Your task to perform on an android device: Clear all items from cart on ebay.com. Add "bose soundlink mini" to the cart on ebay.com Image 0: 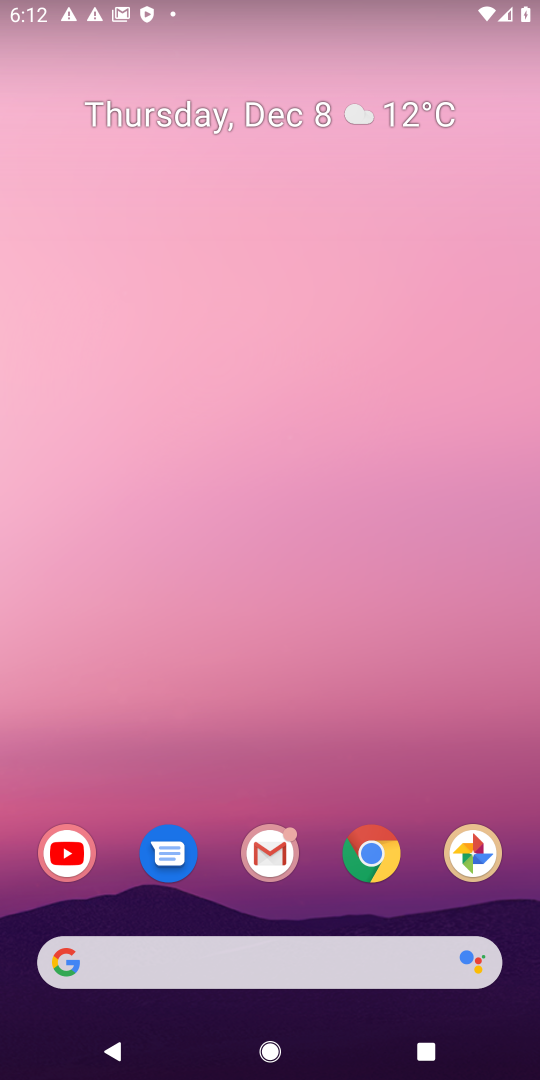
Step 0: click (239, 951)
Your task to perform on an android device: Clear all items from cart on ebay.com. Add "bose soundlink mini" to the cart on ebay.com Image 1: 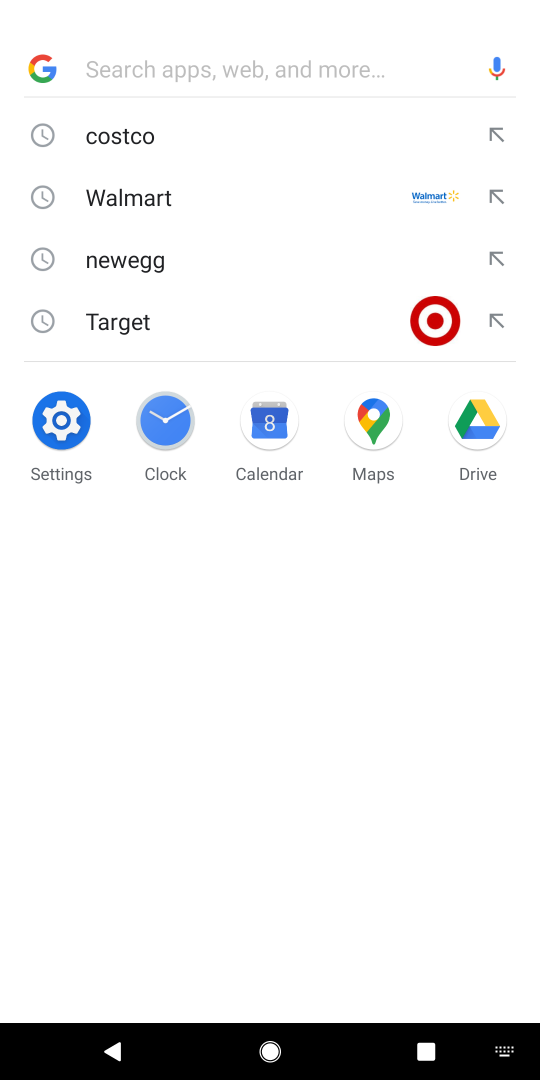
Step 1: type "ebay.com"
Your task to perform on an android device: Clear all items from cart on ebay.com. Add "bose soundlink mini" to the cart on ebay.com Image 2: 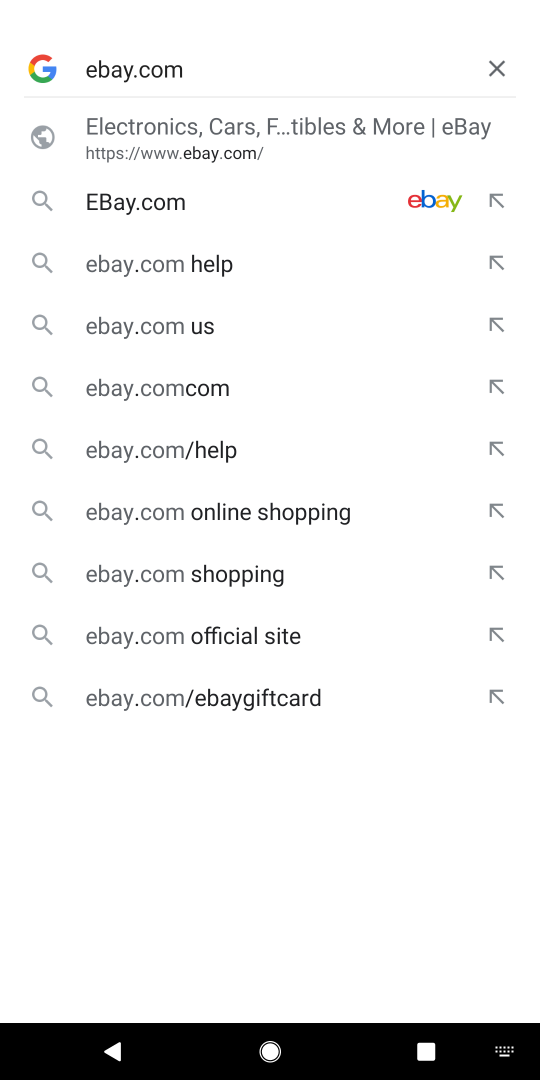
Step 2: click (180, 202)
Your task to perform on an android device: Clear all items from cart on ebay.com. Add "bose soundlink mini" to the cart on ebay.com Image 3: 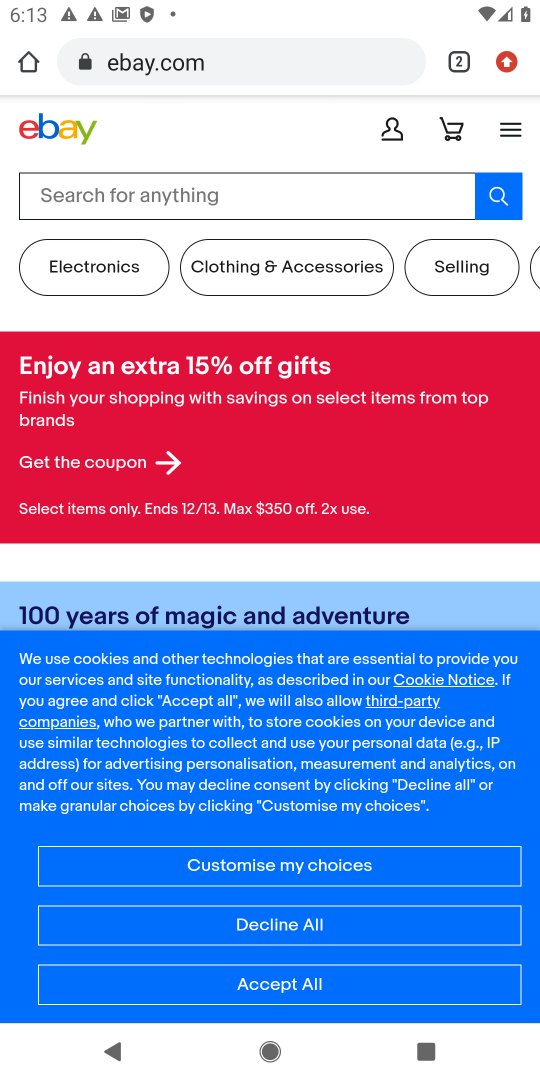
Step 3: click (280, 996)
Your task to perform on an android device: Clear all items from cart on ebay.com. Add "bose soundlink mini" to the cart on ebay.com Image 4: 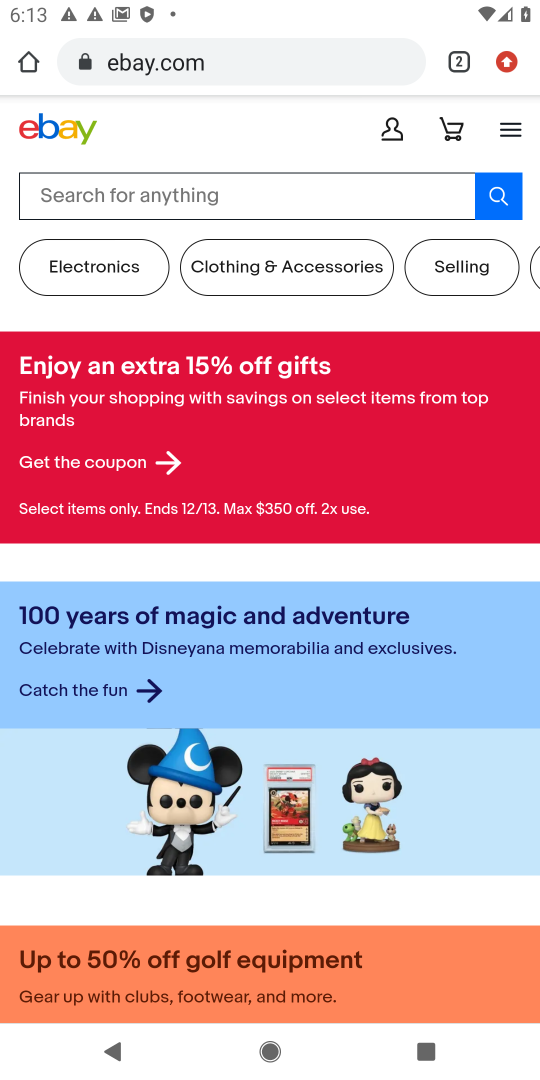
Step 4: click (451, 127)
Your task to perform on an android device: Clear all items from cart on ebay.com. Add "bose soundlink mini" to the cart on ebay.com Image 5: 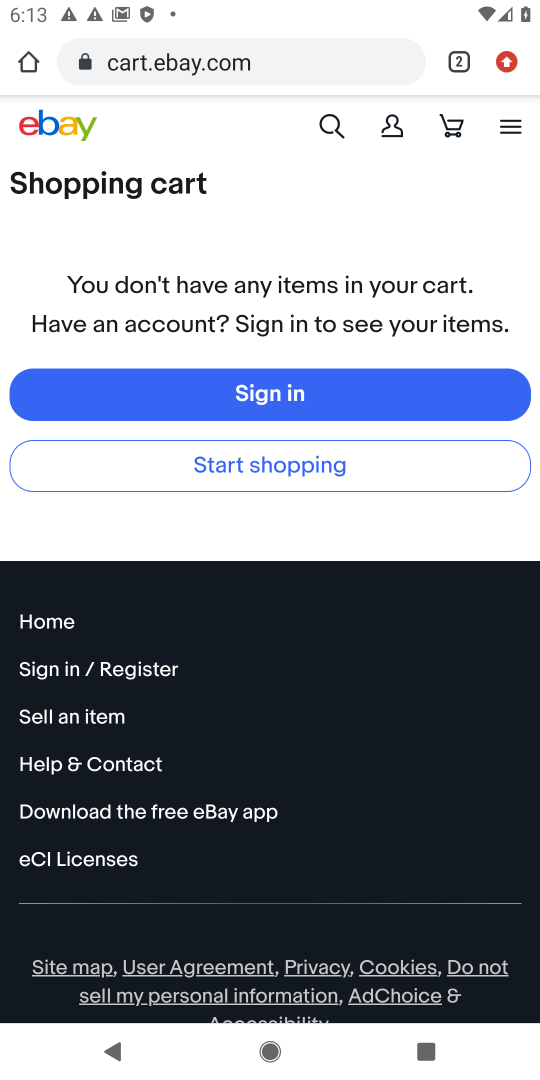
Step 5: click (323, 126)
Your task to perform on an android device: Clear all items from cart on ebay.com. Add "bose soundlink mini" to the cart on ebay.com Image 6: 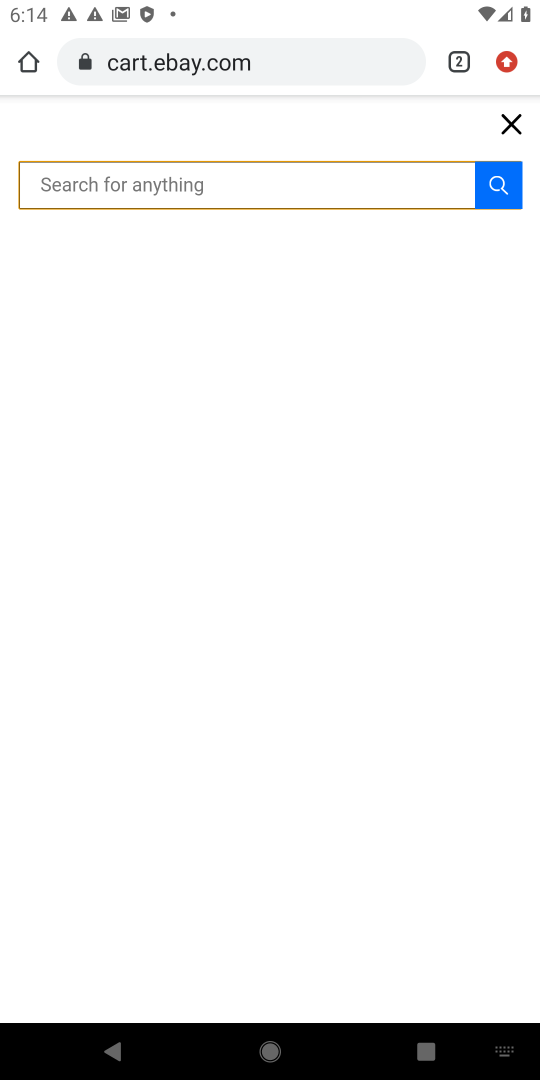
Step 6: type "bose soundlink mini"
Your task to perform on an android device: Clear all items from cart on ebay.com. Add "bose soundlink mini" to the cart on ebay.com Image 7: 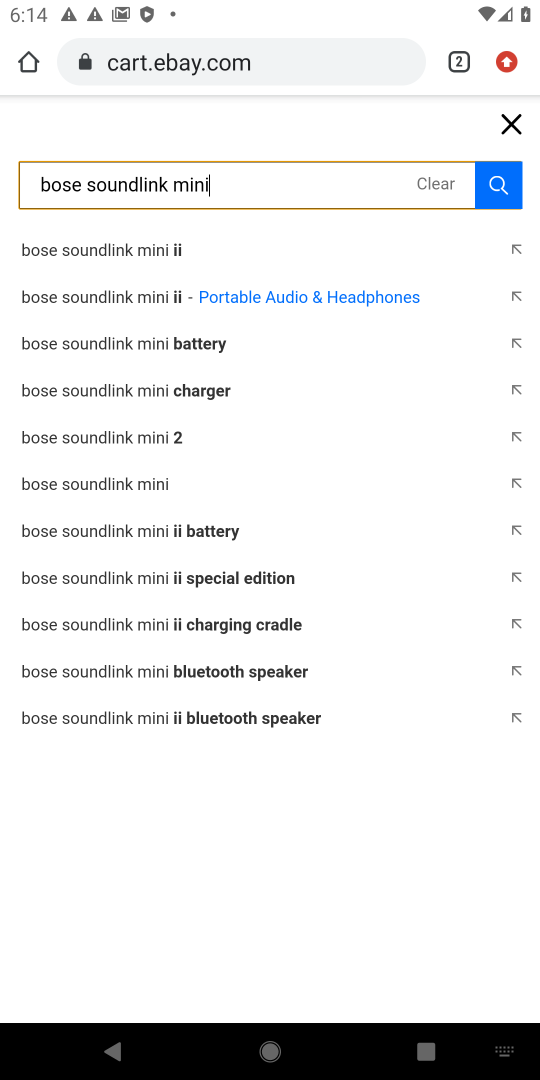
Step 7: click (86, 246)
Your task to perform on an android device: Clear all items from cart on ebay.com. Add "bose soundlink mini" to the cart on ebay.com Image 8: 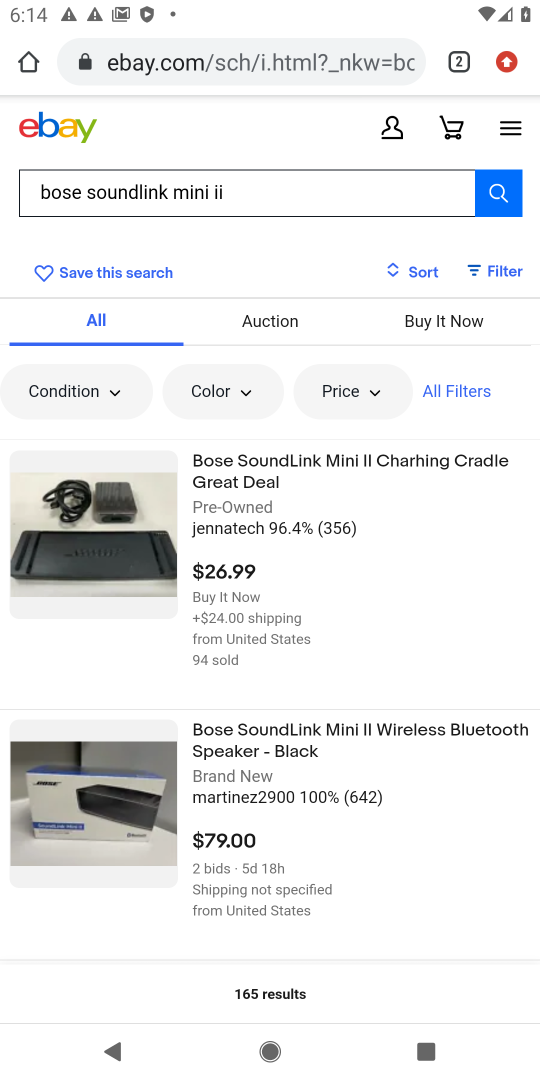
Step 8: click (222, 476)
Your task to perform on an android device: Clear all items from cart on ebay.com. Add "bose soundlink mini" to the cart on ebay.com Image 9: 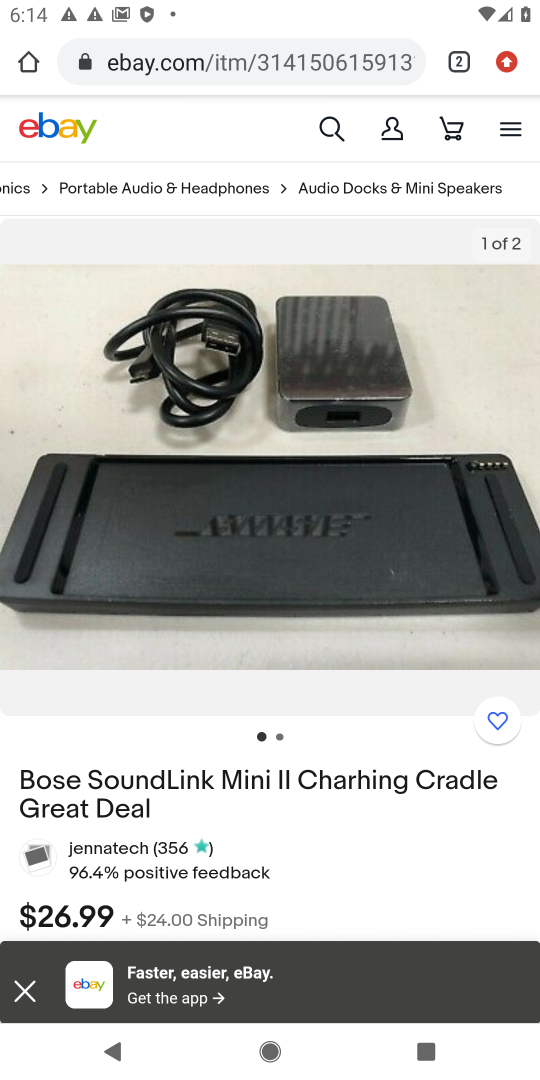
Step 9: drag from (426, 848) to (390, 659)
Your task to perform on an android device: Clear all items from cart on ebay.com. Add "bose soundlink mini" to the cart on ebay.com Image 10: 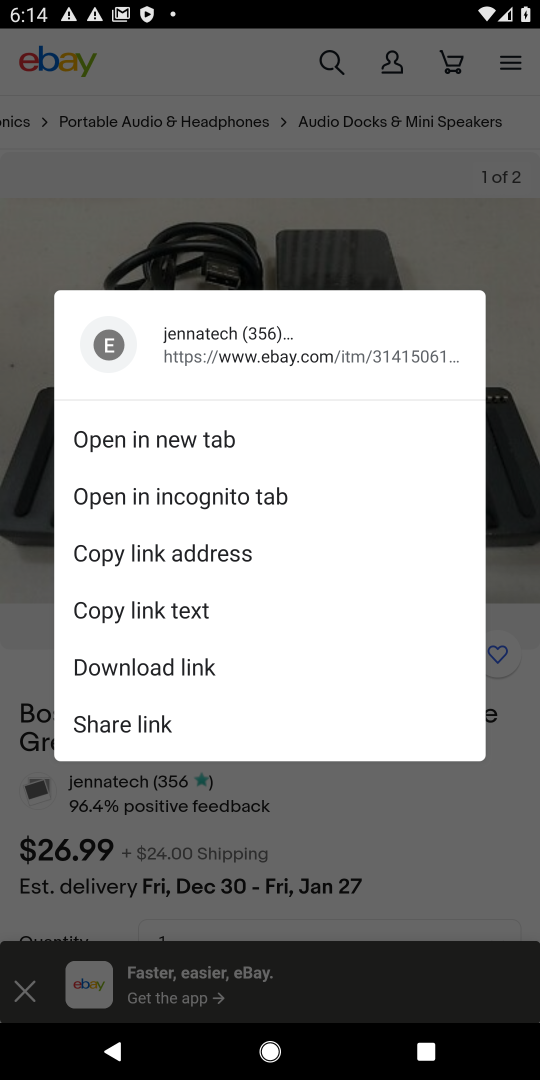
Step 10: click (445, 807)
Your task to perform on an android device: Clear all items from cart on ebay.com. Add "bose soundlink mini" to the cart on ebay.com Image 11: 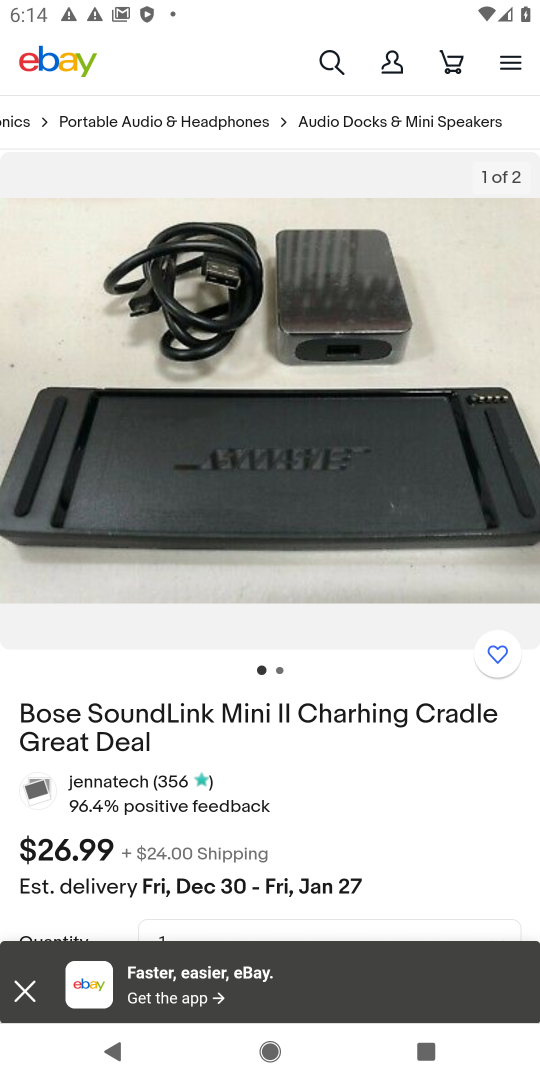
Step 11: drag from (389, 805) to (355, 571)
Your task to perform on an android device: Clear all items from cart on ebay.com. Add "bose soundlink mini" to the cart on ebay.com Image 12: 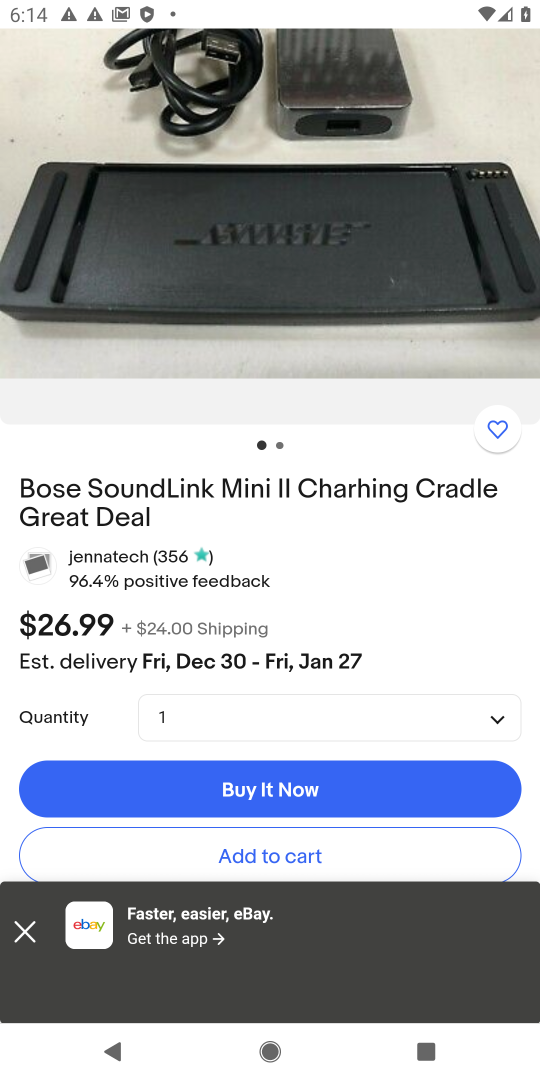
Step 12: click (275, 847)
Your task to perform on an android device: Clear all items from cart on ebay.com. Add "bose soundlink mini" to the cart on ebay.com Image 13: 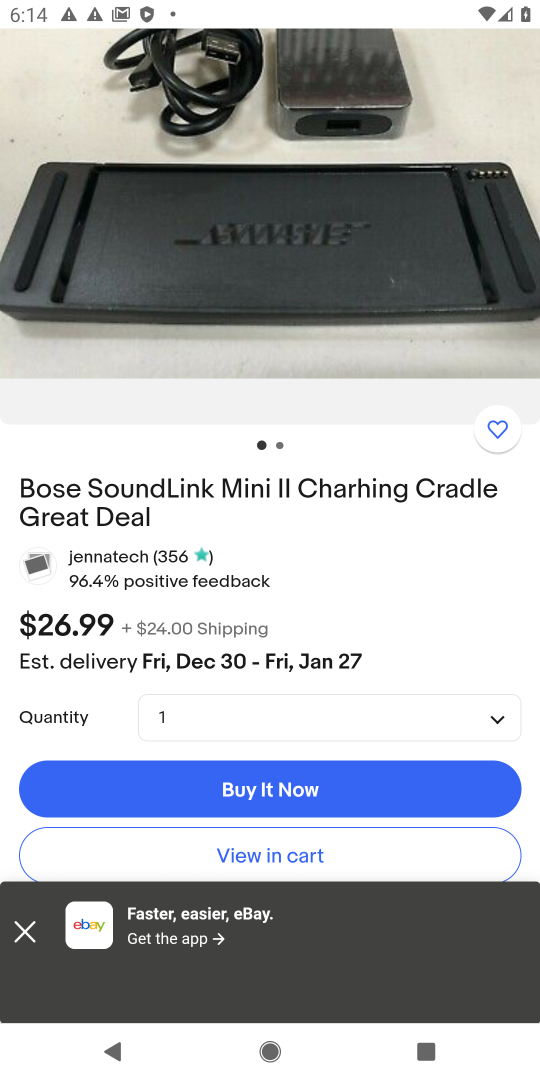
Step 13: task complete